Your task to perform on an android device: empty trash in the gmail app Image 0: 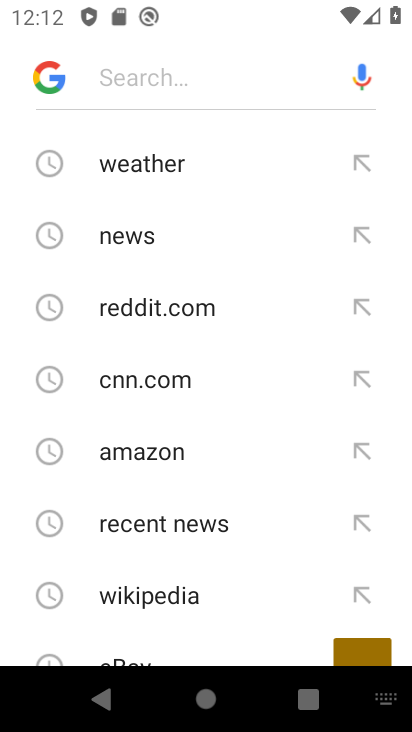
Step 0: press home button
Your task to perform on an android device: empty trash in the gmail app Image 1: 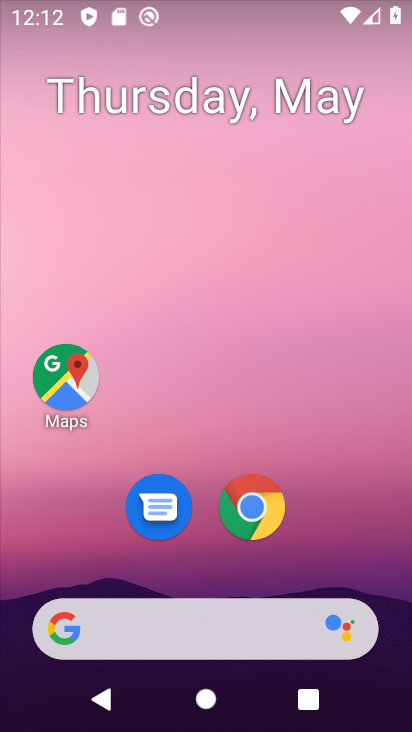
Step 1: drag from (218, 556) to (222, 117)
Your task to perform on an android device: empty trash in the gmail app Image 2: 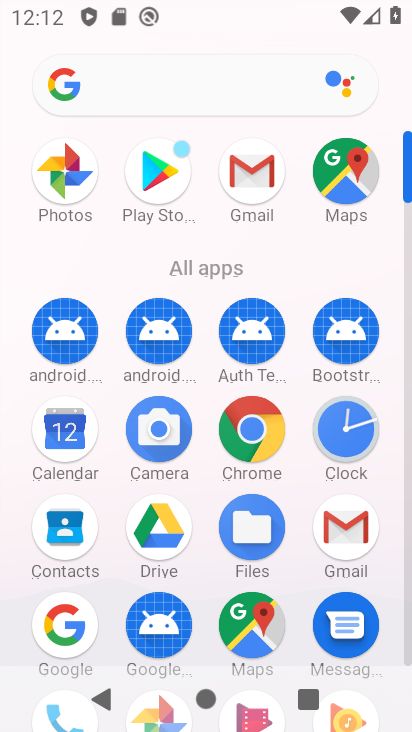
Step 2: click (337, 545)
Your task to perform on an android device: empty trash in the gmail app Image 3: 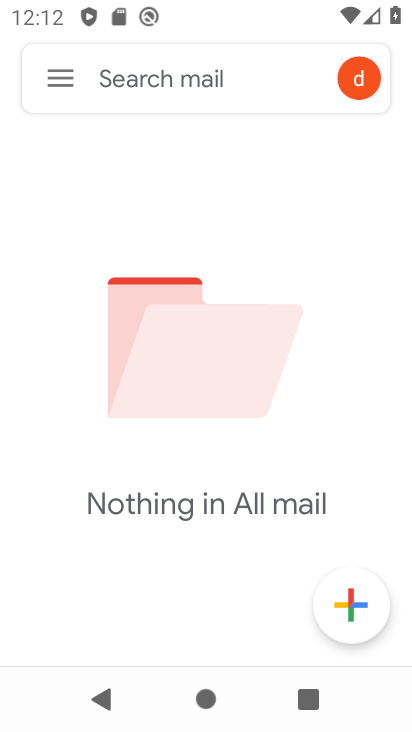
Step 3: click (46, 83)
Your task to perform on an android device: empty trash in the gmail app Image 4: 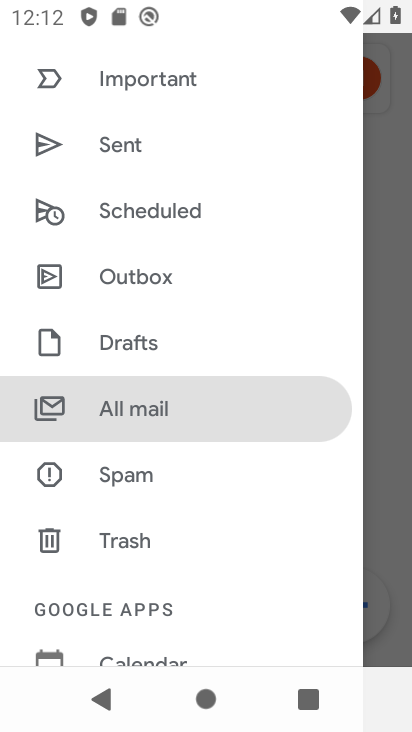
Step 4: click (152, 535)
Your task to perform on an android device: empty trash in the gmail app Image 5: 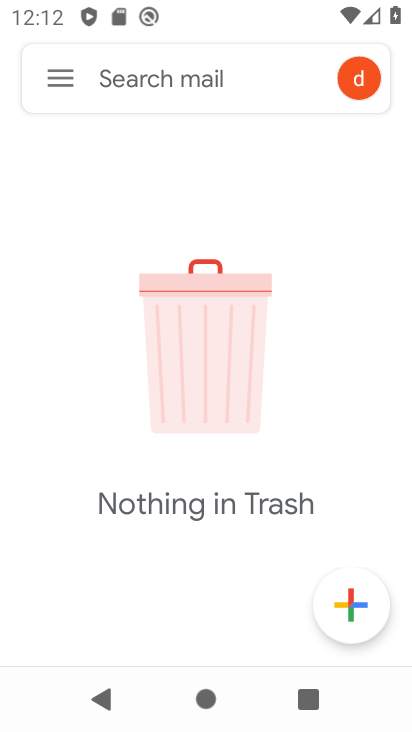
Step 5: task complete